Your task to perform on an android device: Open Google Maps Image 0: 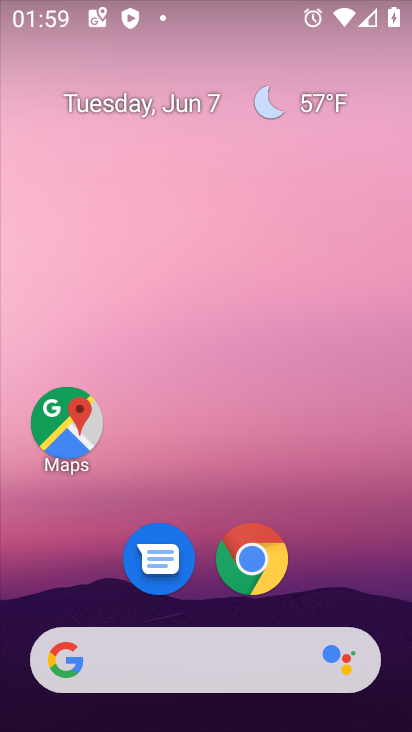
Step 0: click (68, 425)
Your task to perform on an android device: Open Google Maps Image 1: 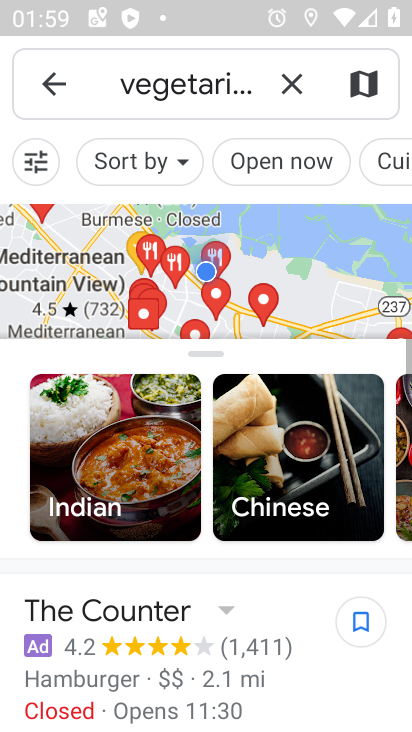
Step 1: click (292, 84)
Your task to perform on an android device: Open Google Maps Image 2: 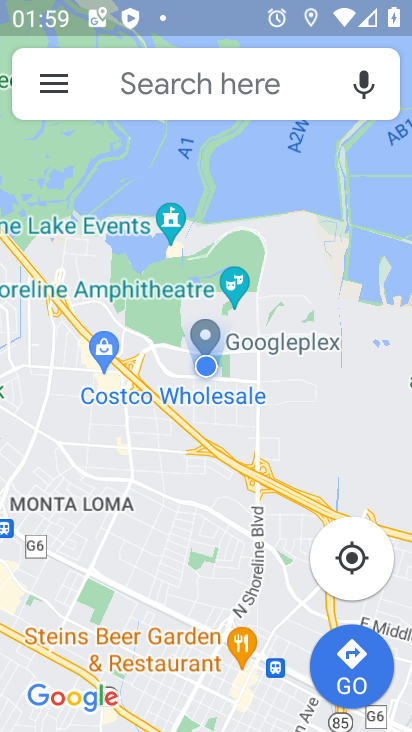
Step 2: task complete